Your task to perform on an android device: Open Google Chrome and open the bookmarks view Image 0: 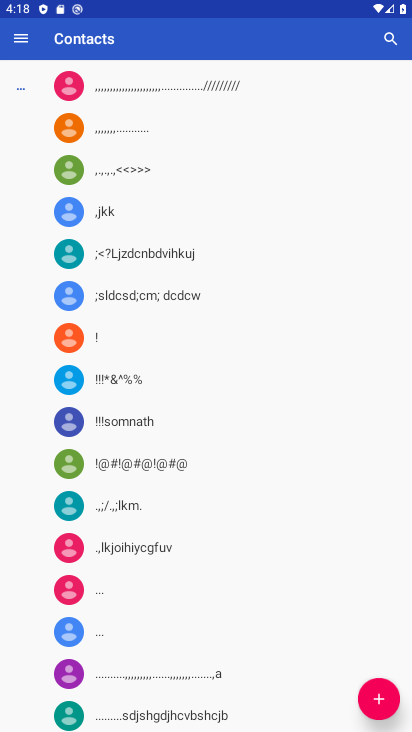
Step 0: press home button
Your task to perform on an android device: Open Google Chrome and open the bookmarks view Image 1: 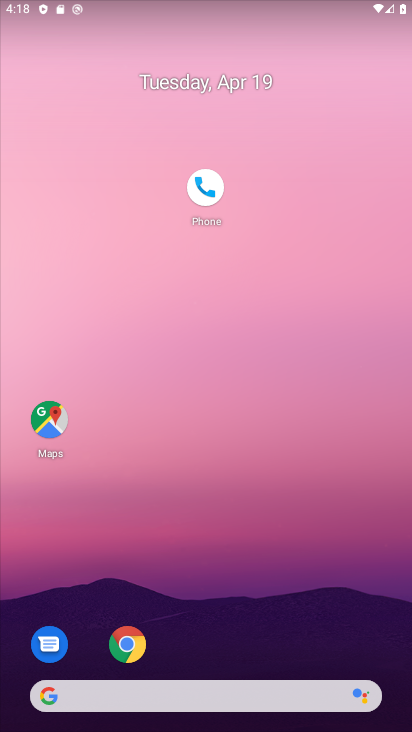
Step 1: click (132, 639)
Your task to perform on an android device: Open Google Chrome and open the bookmarks view Image 2: 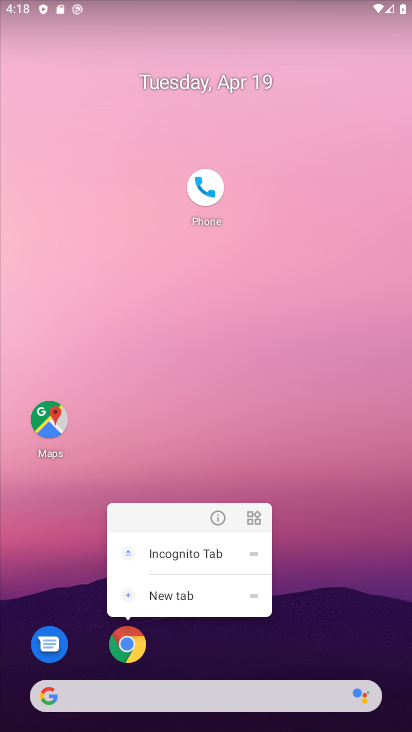
Step 2: click (133, 651)
Your task to perform on an android device: Open Google Chrome and open the bookmarks view Image 3: 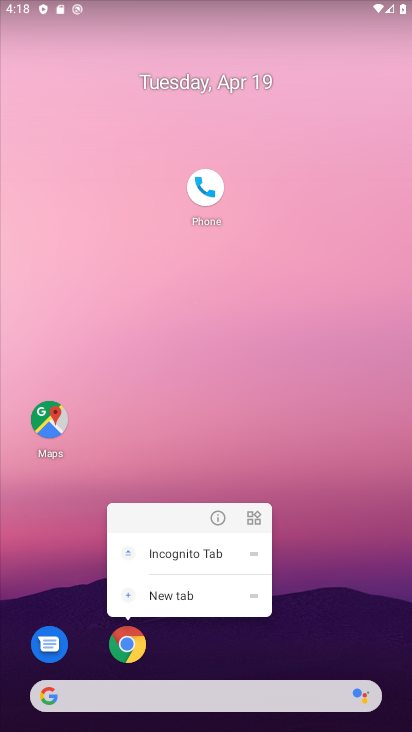
Step 3: click (131, 645)
Your task to perform on an android device: Open Google Chrome and open the bookmarks view Image 4: 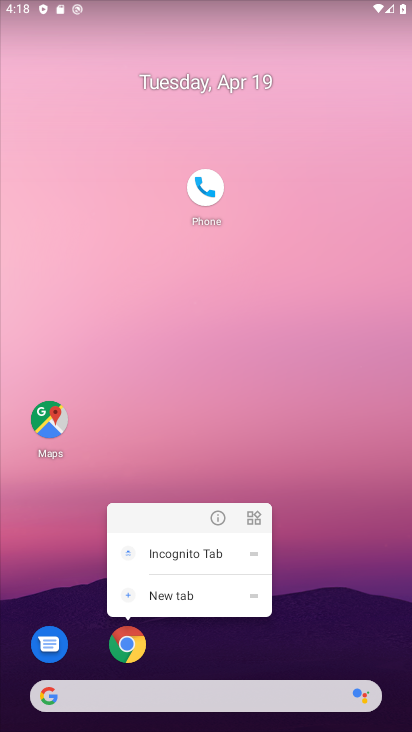
Step 4: click (134, 652)
Your task to perform on an android device: Open Google Chrome and open the bookmarks view Image 5: 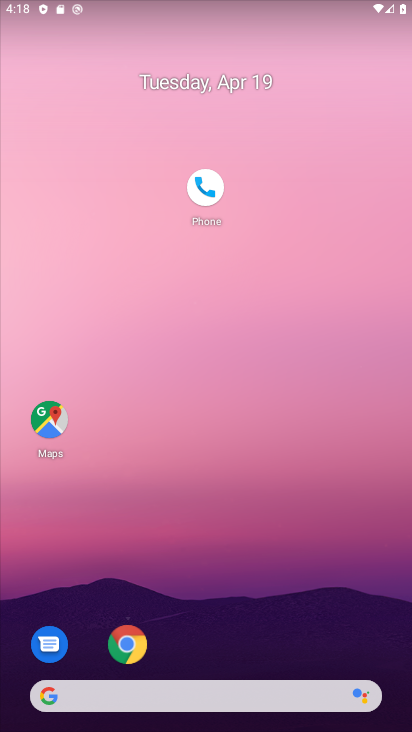
Step 5: click (130, 642)
Your task to perform on an android device: Open Google Chrome and open the bookmarks view Image 6: 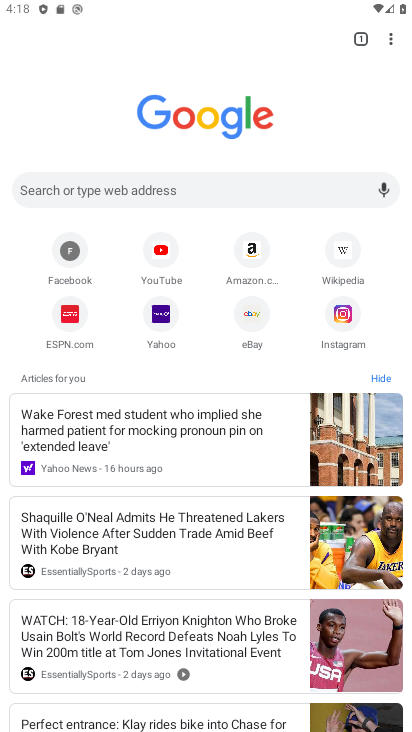
Step 6: click (391, 31)
Your task to perform on an android device: Open Google Chrome and open the bookmarks view Image 7: 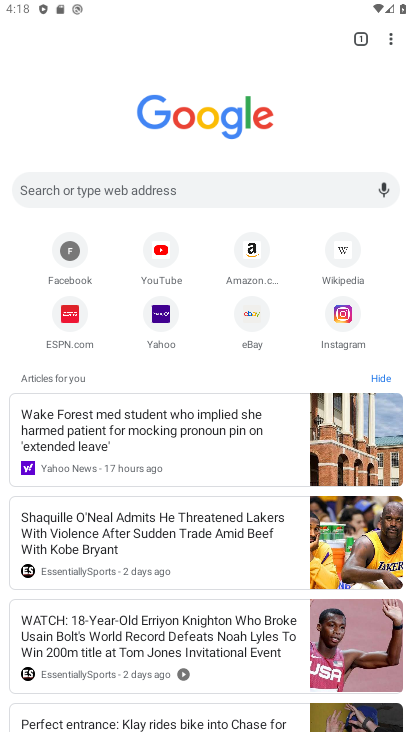
Step 7: click (391, 31)
Your task to perform on an android device: Open Google Chrome and open the bookmarks view Image 8: 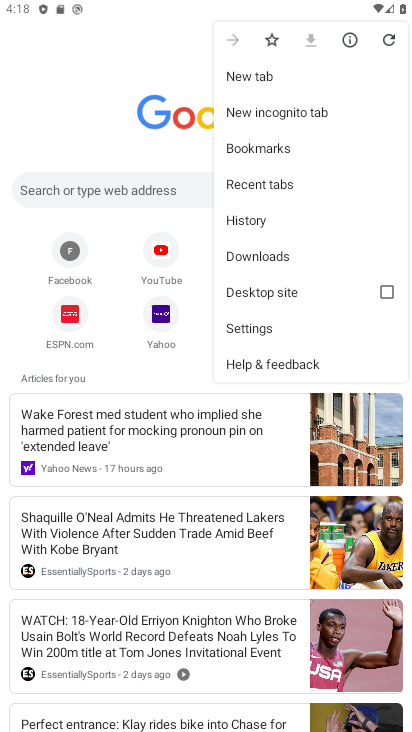
Step 8: click (266, 150)
Your task to perform on an android device: Open Google Chrome and open the bookmarks view Image 9: 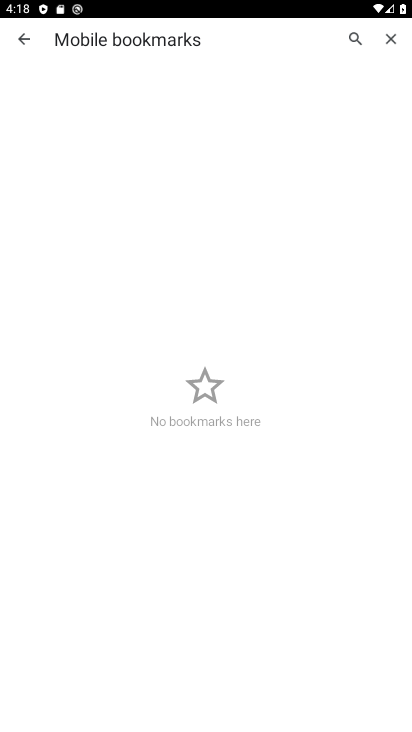
Step 9: task complete